Your task to perform on an android device: check out phone information Image 0: 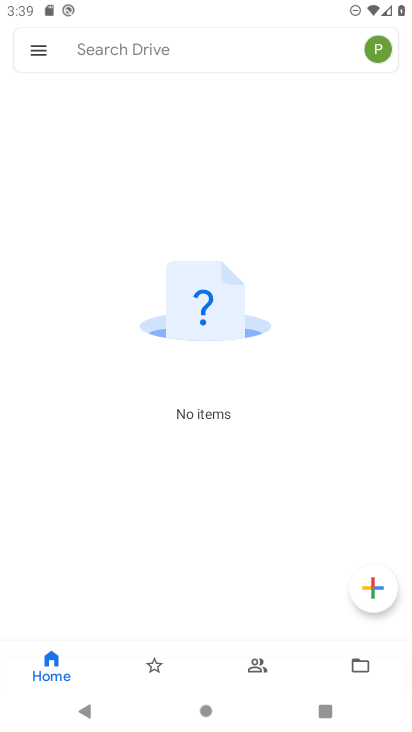
Step 0: press home button
Your task to perform on an android device: check out phone information Image 1: 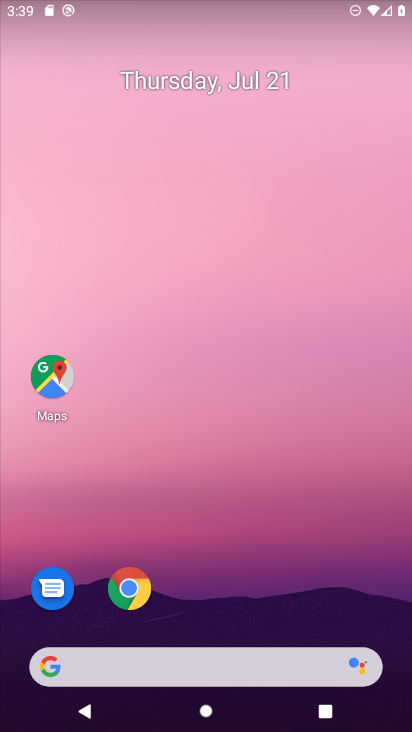
Step 1: drag from (193, 667) to (211, 111)
Your task to perform on an android device: check out phone information Image 2: 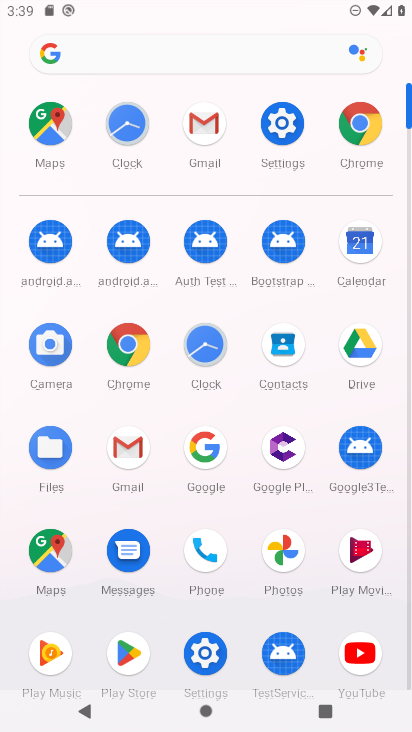
Step 2: click (286, 138)
Your task to perform on an android device: check out phone information Image 3: 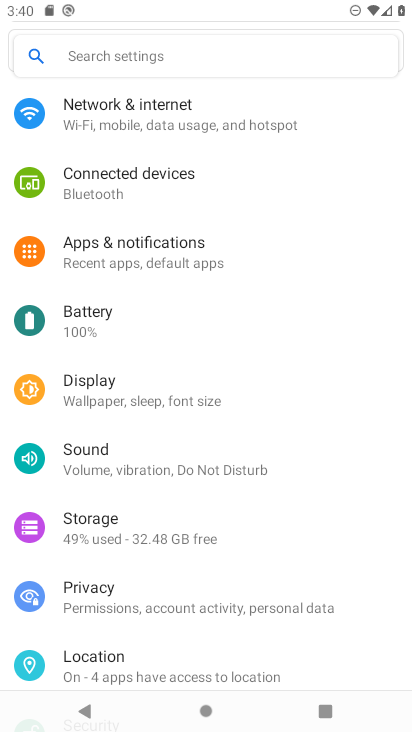
Step 3: drag from (215, 515) to (200, 10)
Your task to perform on an android device: check out phone information Image 4: 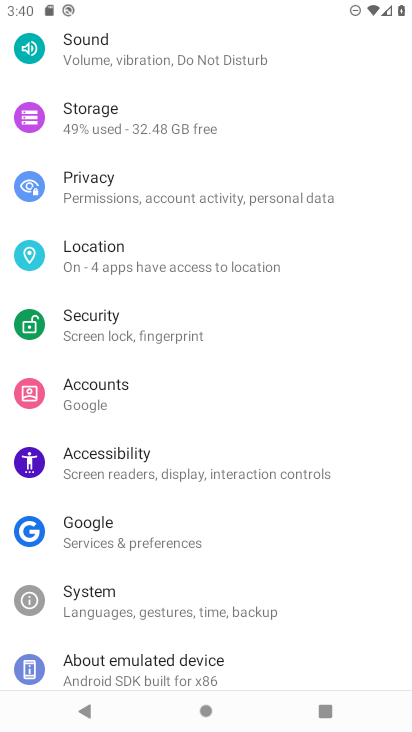
Step 4: click (209, 676)
Your task to perform on an android device: check out phone information Image 5: 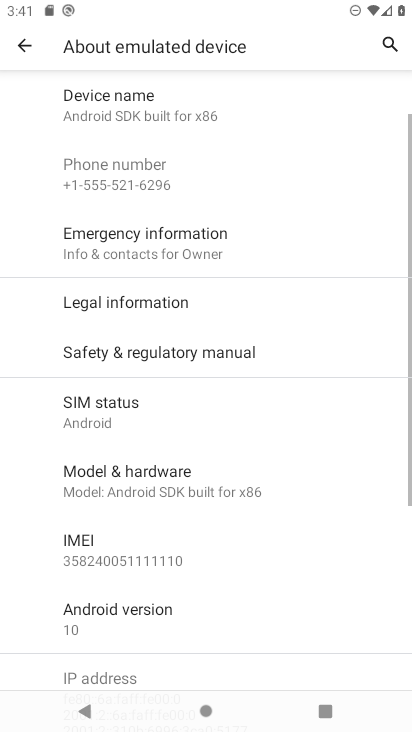
Step 5: task complete